Your task to perform on an android device: refresh tabs in the chrome app Image 0: 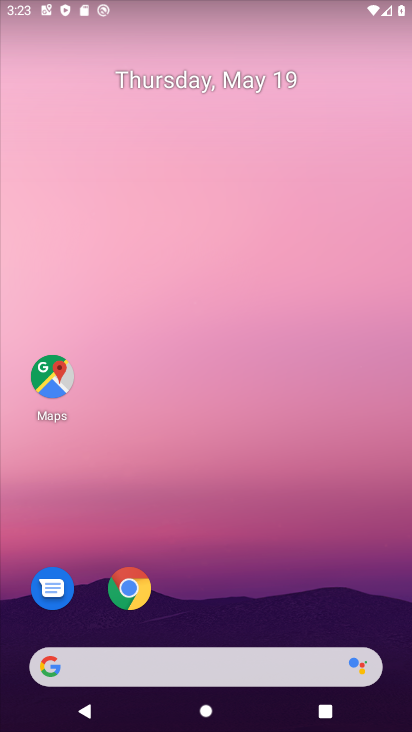
Step 0: click (131, 585)
Your task to perform on an android device: refresh tabs in the chrome app Image 1: 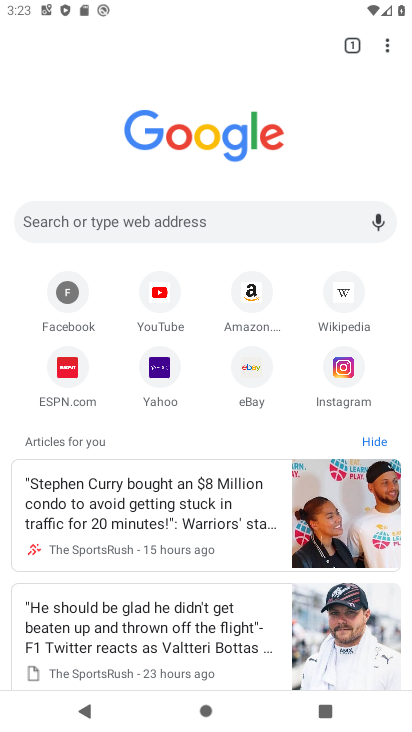
Step 1: click (395, 47)
Your task to perform on an android device: refresh tabs in the chrome app Image 2: 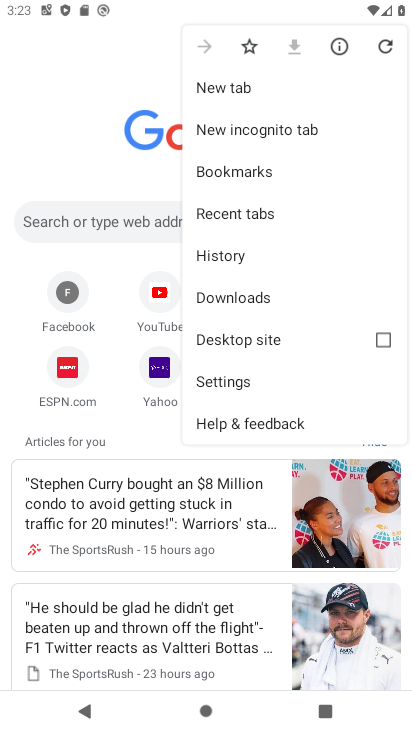
Step 2: click (379, 48)
Your task to perform on an android device: refresh tabs in the chrome app Image 3: 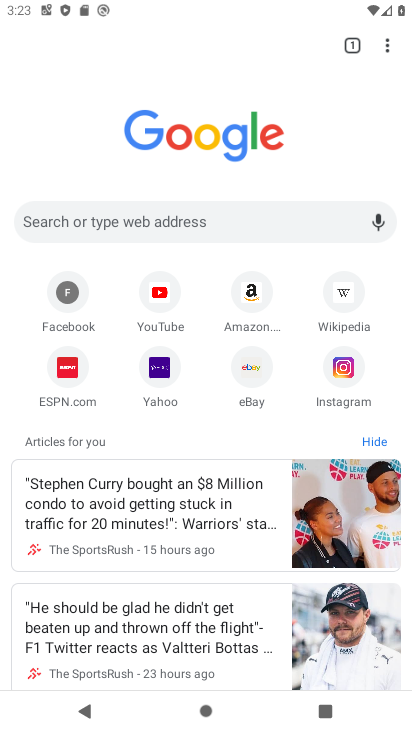
Step 3: task complete